Your task to perform on an android device: see sites visited before in the chrome app Image 0: 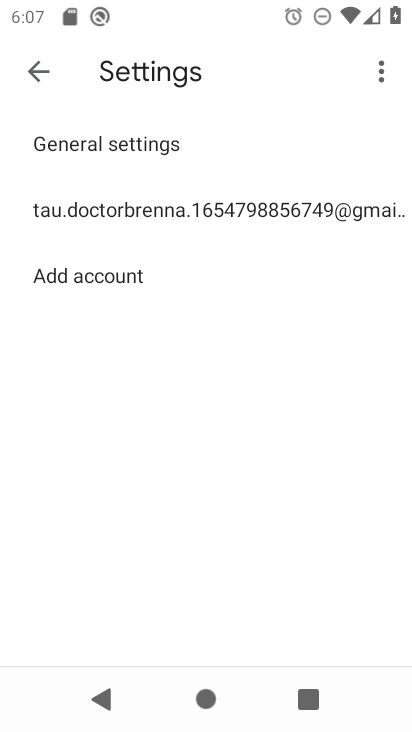
Step 0: press home button
Your task to perform on an android device: see sites visited before in the chrome app Image 1: 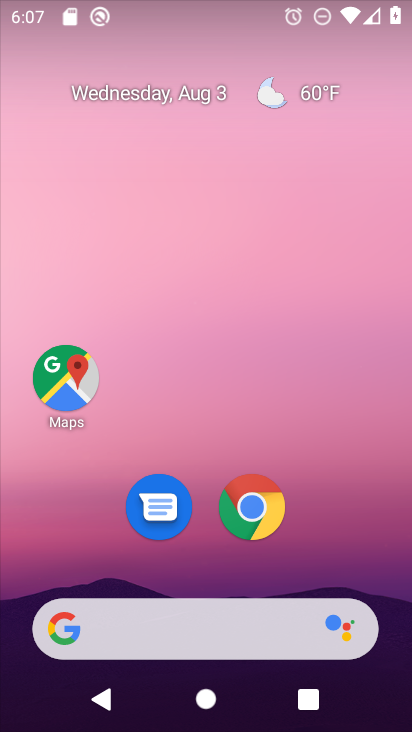
Step 1: drag from (380, 535) to (361, 134)
Your task to perform on an android device: see sites visited before in the chrome app Image 2: 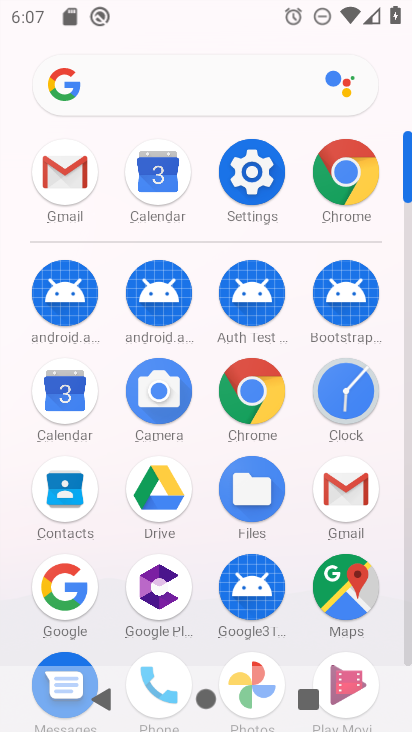
Step 2: click (355, 169)
Your task to perform on an android device: see sites visited before in the chrome app Image 3: 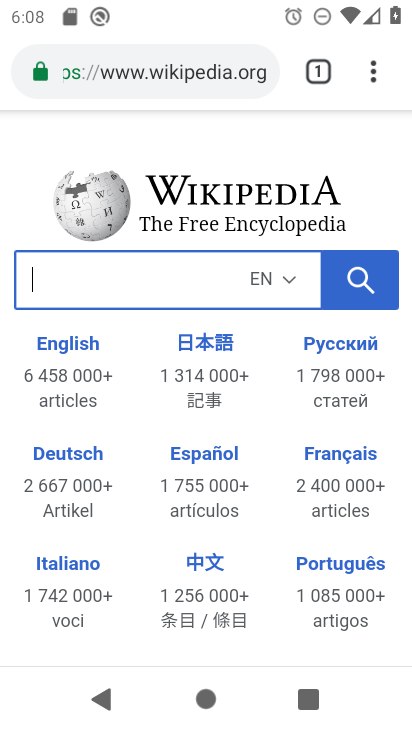
Step 3: task complete